Your task to perform on an android device: View the shopping cart on amazon.com. Image 0: 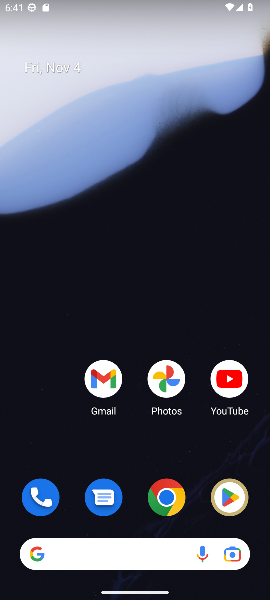
Step 0: click (168, 500)
Your task to perform on an android device: View the shopping cart on amazon.com. Image 1: 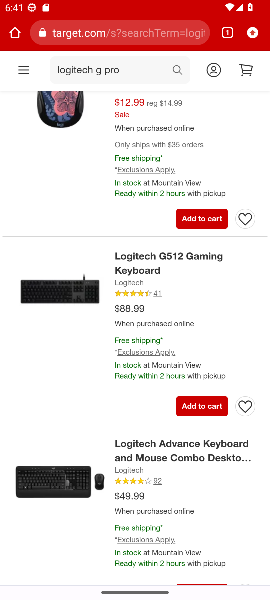
Step 1: click (120, 28)
Your task to perform on an android device: View the shopping cart on amazon.com. Image 2: 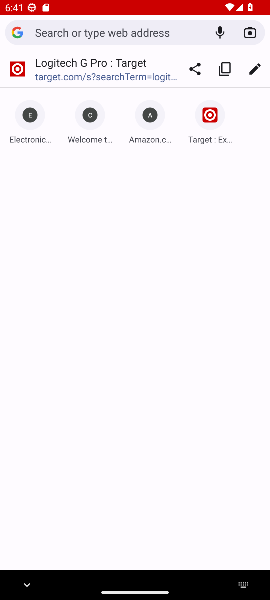
Step 2: click (147, 122)
Your task to perform on an android device: View the shopping cart on amazon.com. Image 3: 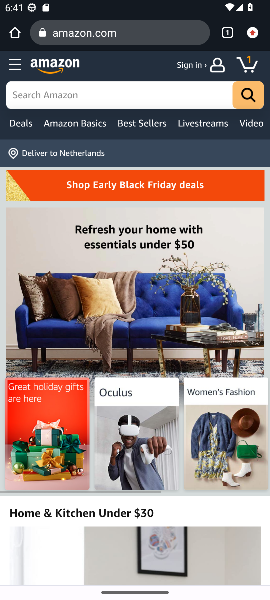
Step 3: click (250, 67)
Your task to perform on an android device: View the shopping cart on amazon.com. Image 4: 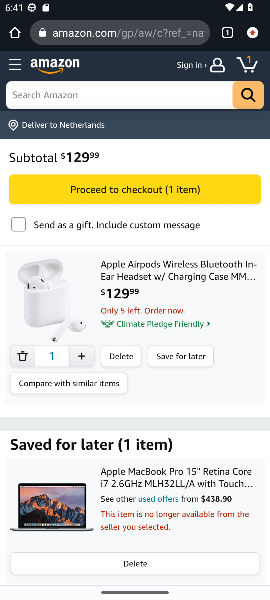
Step 4: task complete